Your task to perform on an android device: Open ESPN.com Image 0: 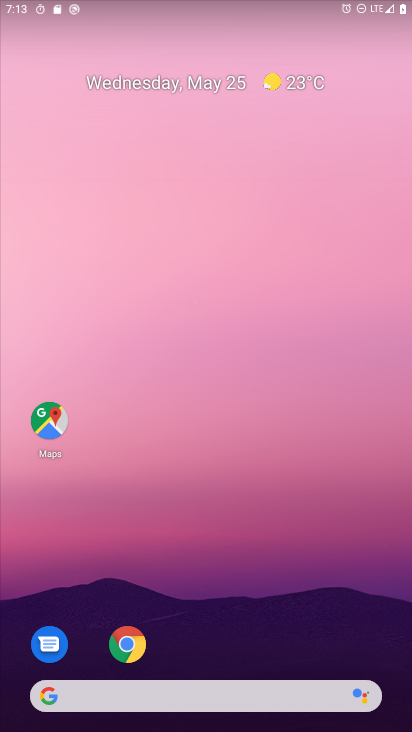
Step 0: drag from (331, 623) to (279, 0)
Your task to perform on an android device: Open ESPN.com Image 1: 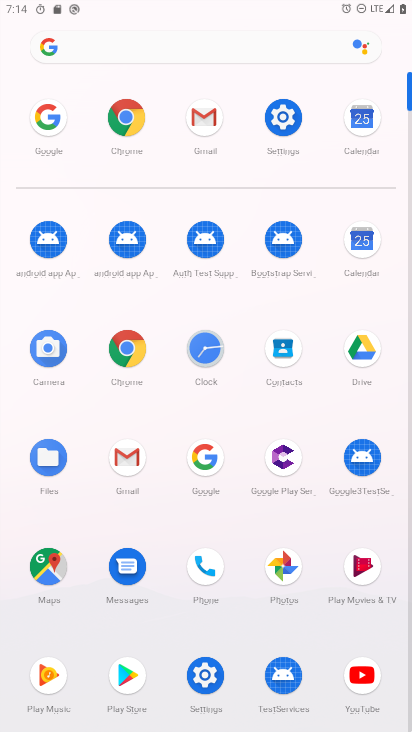
Step 1: click (196, 459)
Your task to perform on an android device: Open ESPN.com Image 2: 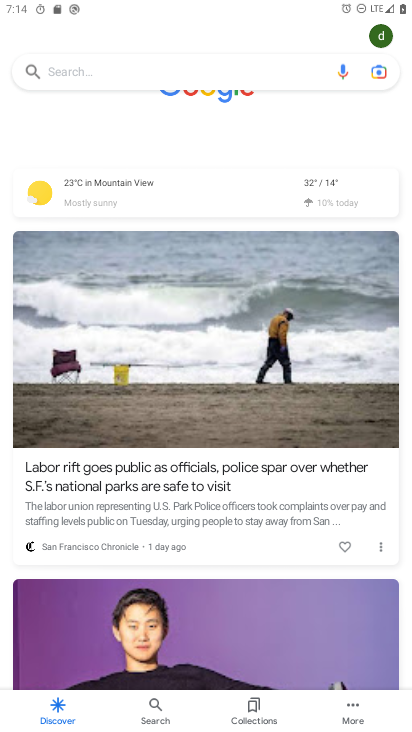
Step 2: click (169, 72)
Your task to perform on an android device: Open ESPN.com Image 3: 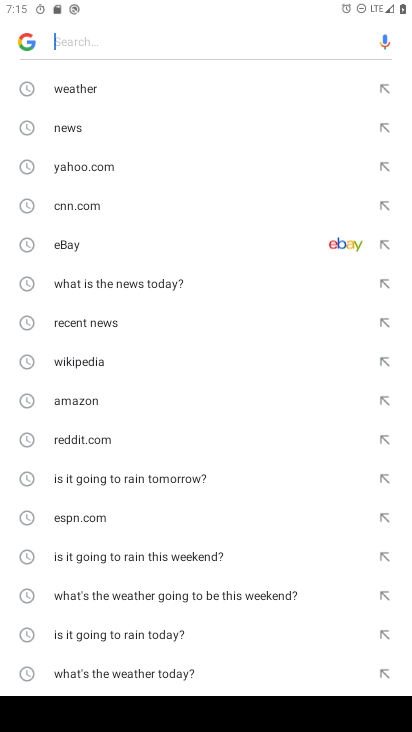
Step 3: click (105, 521)
Your task to perform on an android device: Open ESPN.com Image 4: 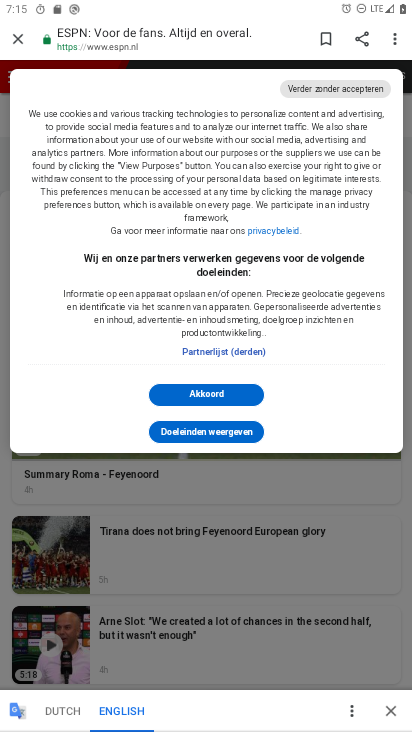
Step 4: task complete